Your task to perform on an android device: Open Google Maps and go to "Timeline" Image 0: 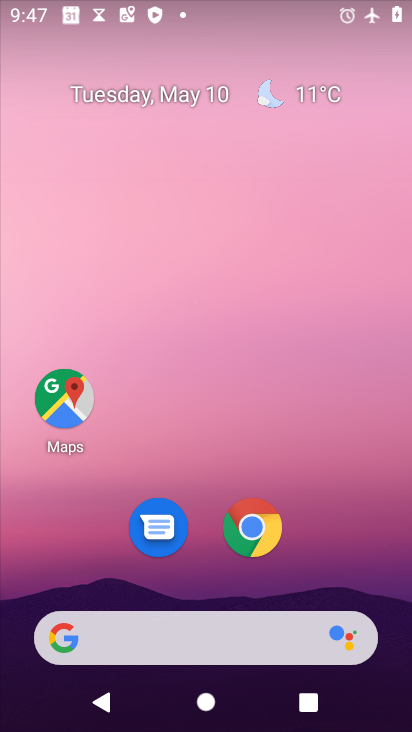
Step 0: click (80, 409)
Your task to perform on an android device: Open Google Maps and go to "Timeline" Image 1: 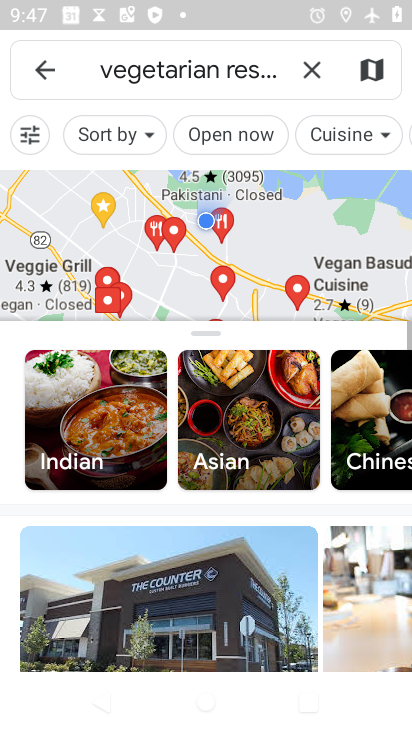
Step 1: click (50, 80)
Your task to perform on an android device: Open Google Maps and go to "Timeline" Image 2: 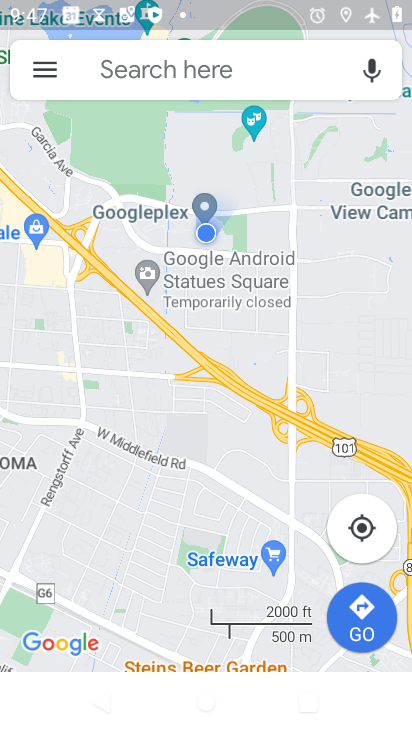
Step 2: click (50, 80)
Your task to perform on an android device: Open Google Maps and go to "Timeline" Image 3: 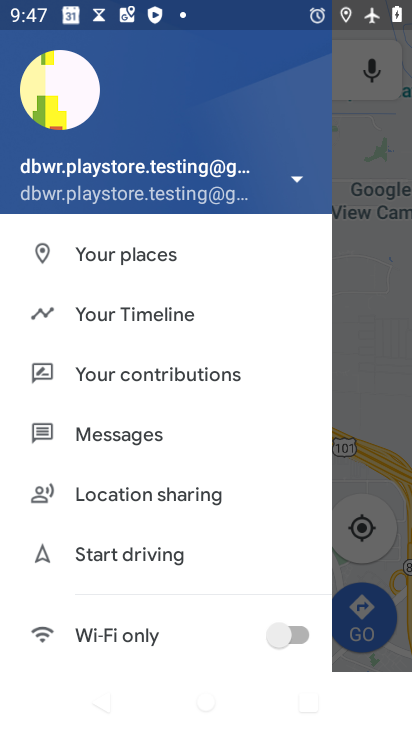
Step 3: click (152, 308)
Your task to perform on an android device: Open Google Maps and go to "Timeline" Image 4: 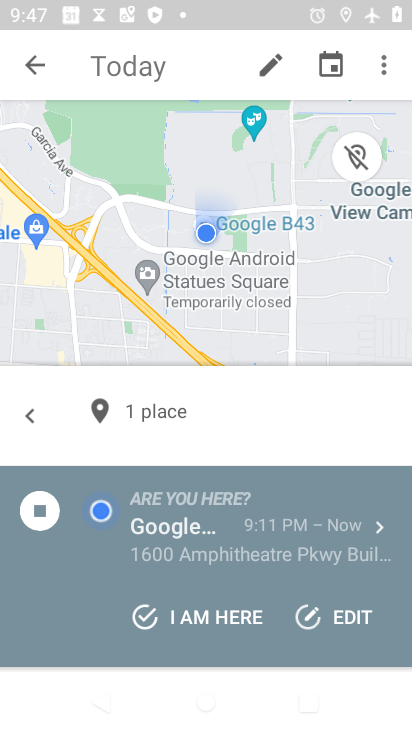
Step 4: task complete